Your task to perform on an android device: Open the phone app and click the voicemail tab. Image 0: 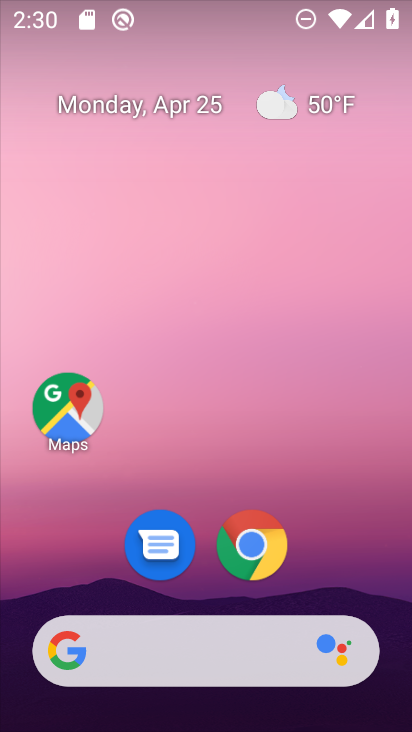
Step 0: drag from (352, 558) to (244, 127)
Your task to perform on an android device: Open the phone app and click the voicemail tab. Image 1: 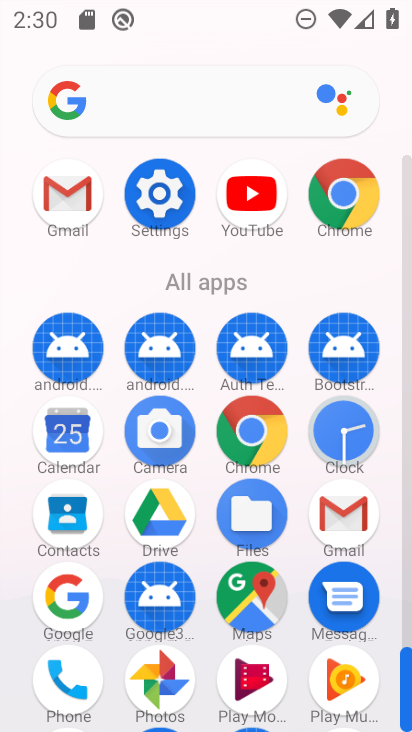
Step 1: click (58, 672)
Your task to perform on an android device: Open the phone app and click the voicemail tab. Image 2: 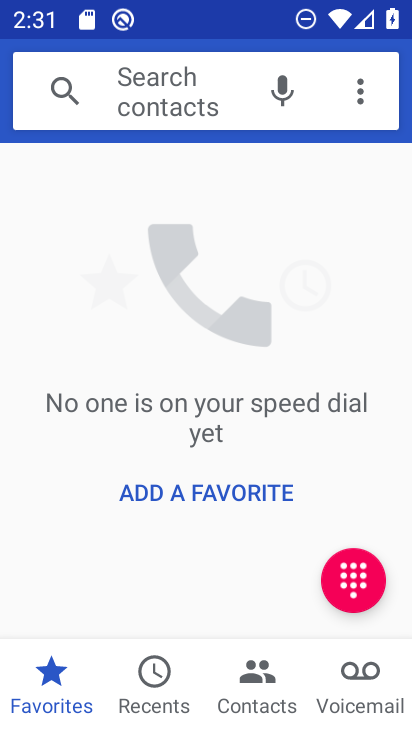
Step 2: click (358, 678)
Your task to perform on an android device: Open the phone app and click the voicemail tab. Image 3: 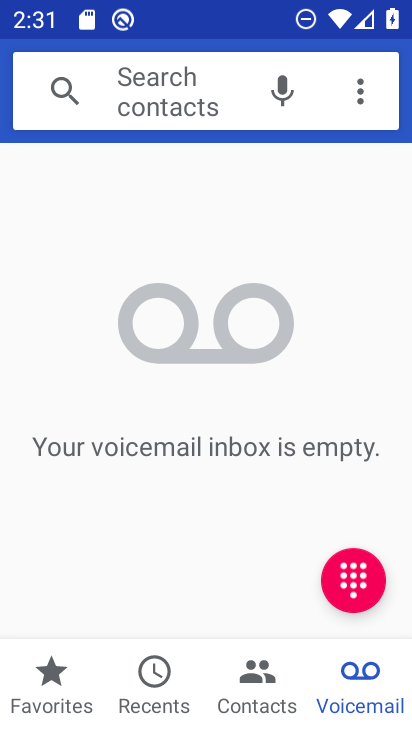
Step 3: task complete